Your task to perform on an android device: Turn off the flashlight Image 0: 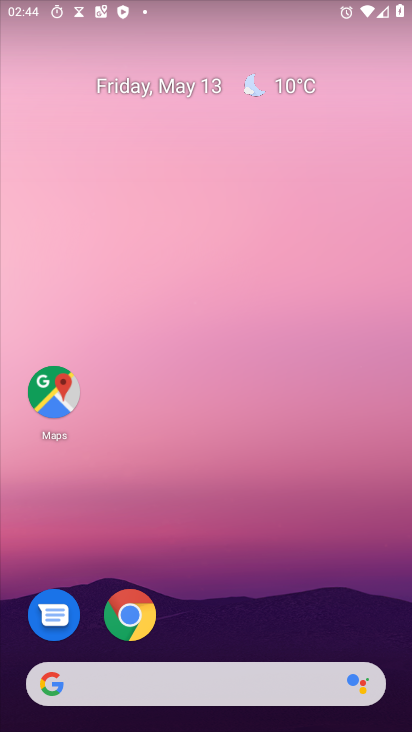
Step 0: drag from (207, 616) to (162, 136)
Your task to perform on an android device: Turn off the flashlight Image 1: 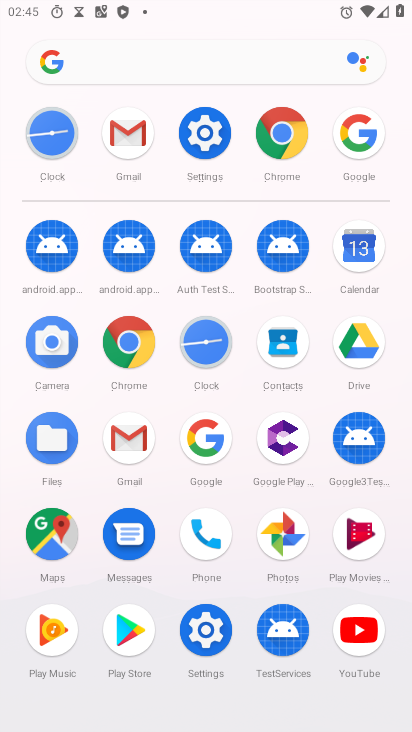
Step 1: click (209, 641)
Your task to perform on an android device: Turn off the flashlight Image 2: 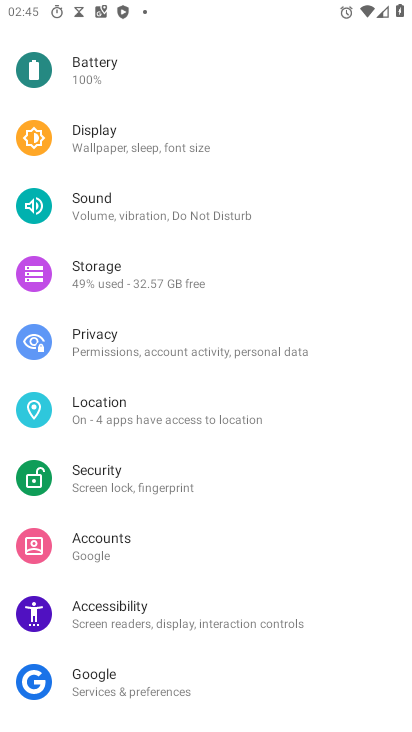
Step 2: drag from (214, 53) to (146, 614)
Your task to perform on an android device: Turn off the flashlight Image 3: 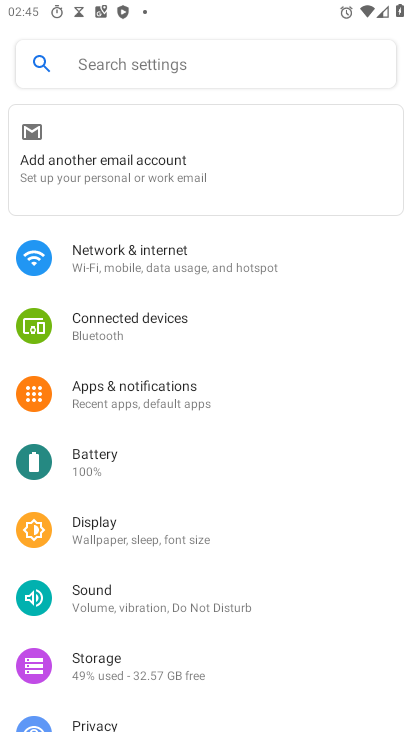
Step 3: click (163, 62)
Your task to perform on an android device: Turn off the flashlight Image 4: 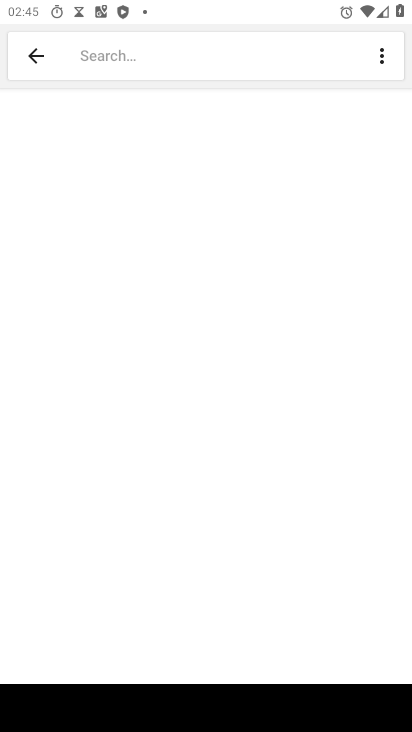
Step 4: type "flashlight"
Your task to perform on an android device: Turn off the flashlight Image 5: 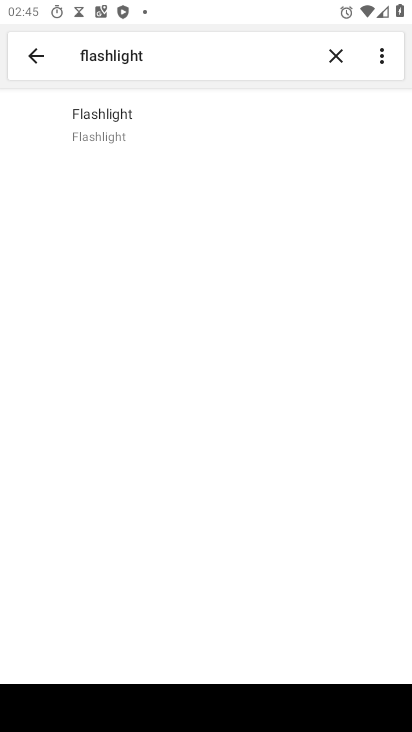
Step 5: click (177, 118)
Your task to perform on an android device: Turn off the flashlight Image 6: 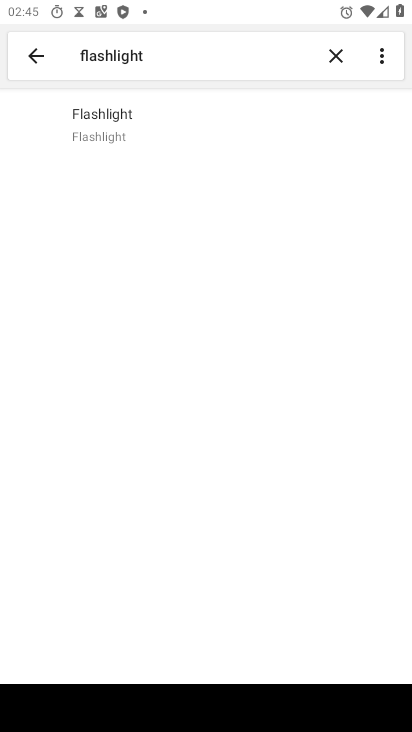
Step 6: click (105, 128)
Your task to perform on an android device: Turn off the flashlight Image 7: 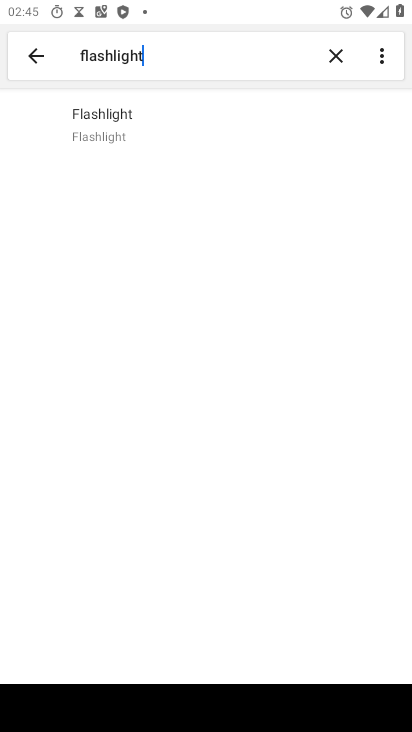
Step 7: click (107, 110)
Your task to perform on an android device: Turn off the flashlight Image 8: 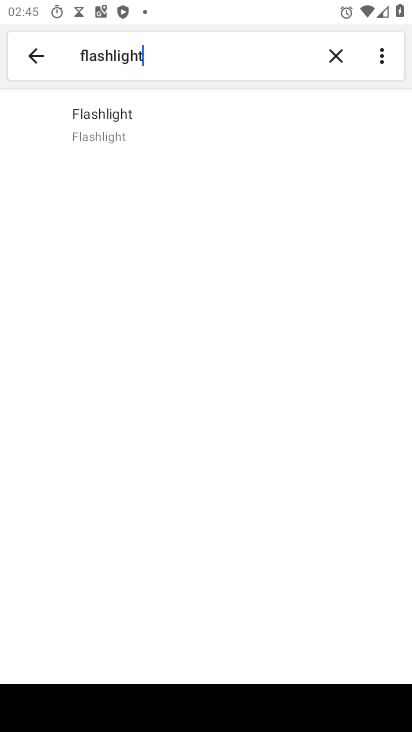
Step 8: task complete